Your task to perform on an android device: Open accessibility settings Image 0: 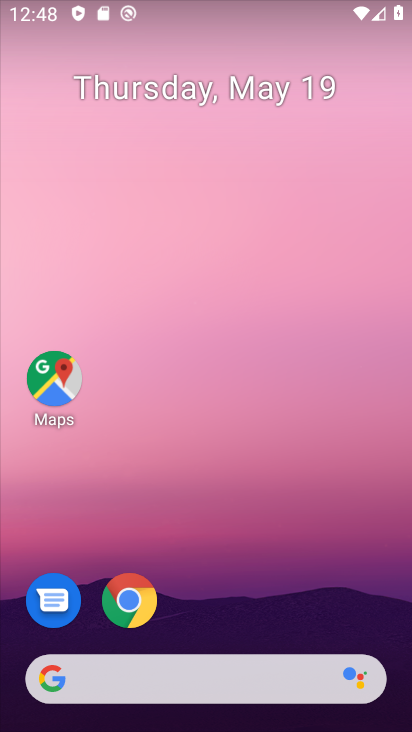
Step 0: drag from (238, 607) to (322, 112)
Your task to perform on an android device: Open accessibility settings Image 1: 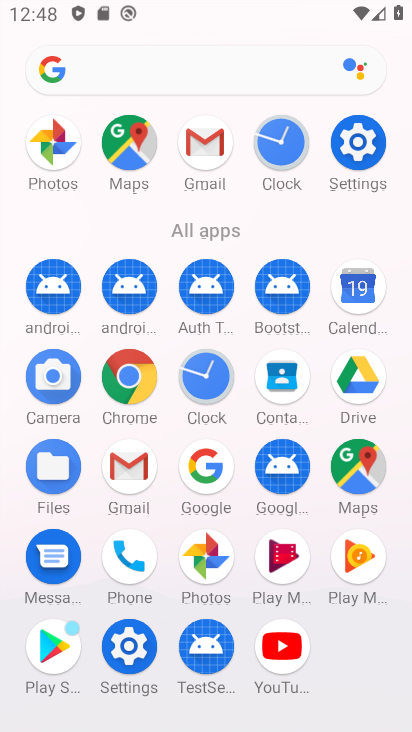
Step 1: click (350, 164)
Your task to perform on an android device: Open accessibility settings Image 2: 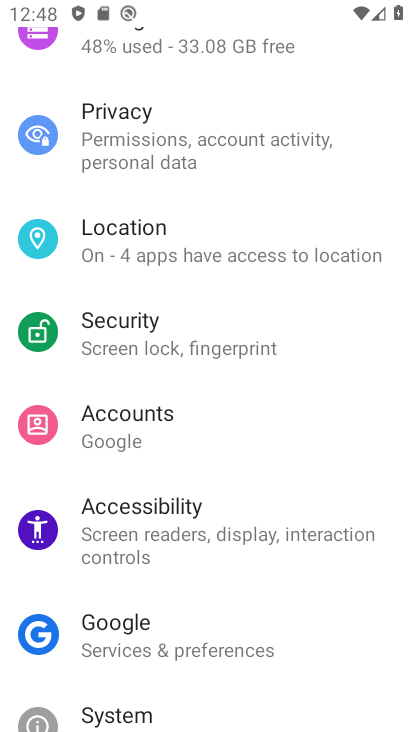
Step 2: drag from (183, 628) to (184, 461)
Your task to perform on an android device: Open accessibility settings Image 3: 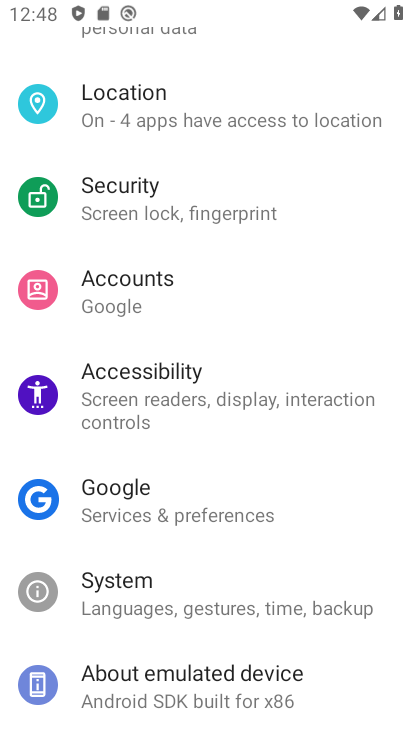
Step 3: click (147, 388)
Your task to perform on an android device: Open accessibility settings Image 4: 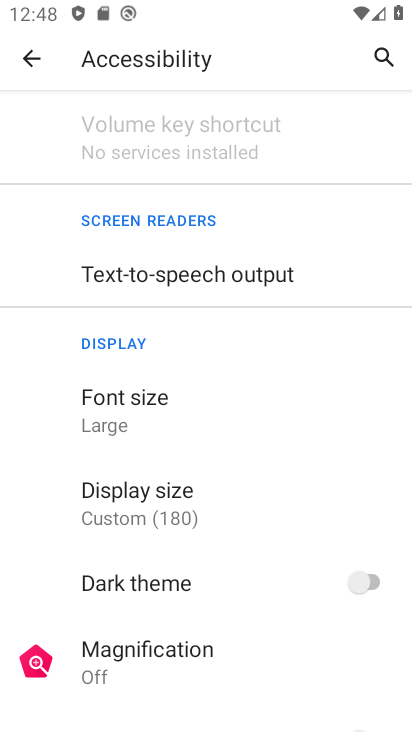
Step 4: task complete